Your task to perform on an android device: Open CNN.com Image 0: 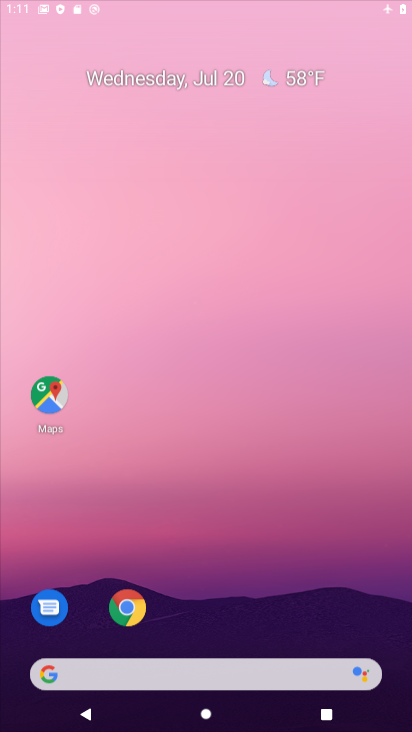
Step 0: drag from (236, 526) to (236, 363)
Your task to perform on an android device: Open CNN.com Image 1: 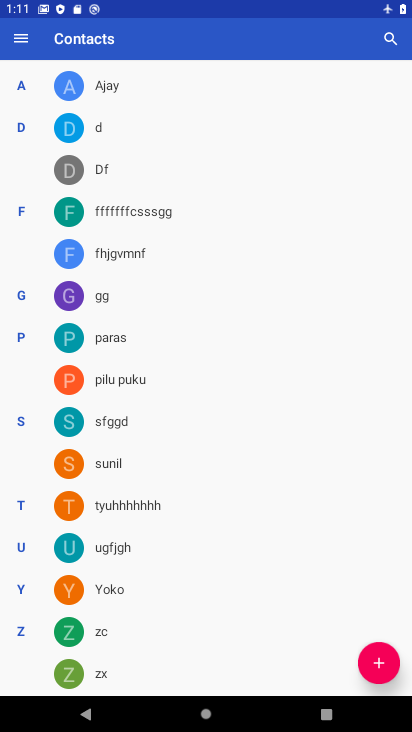
Step 1: press home button
Your task to perform on an android device: Open CNN.com Image 2: 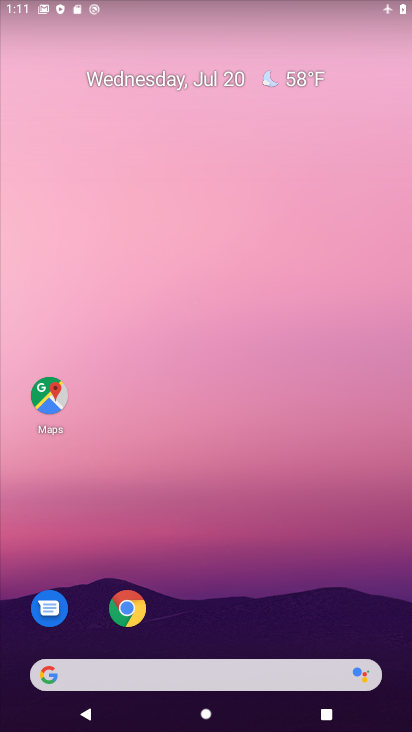
Step 2: drag from (251, 720) to (234, 256)
Your task to perform on an android device: Open CNN.com Image 3: 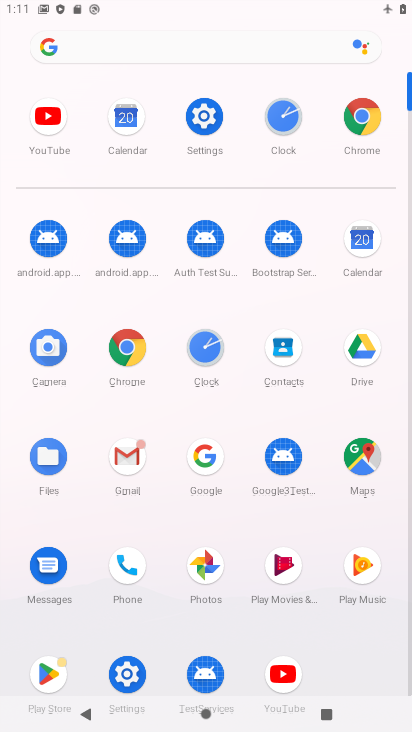
Step 3: click (365, 113)
Your task to perform on an android device: Open CNN.com Image 4: 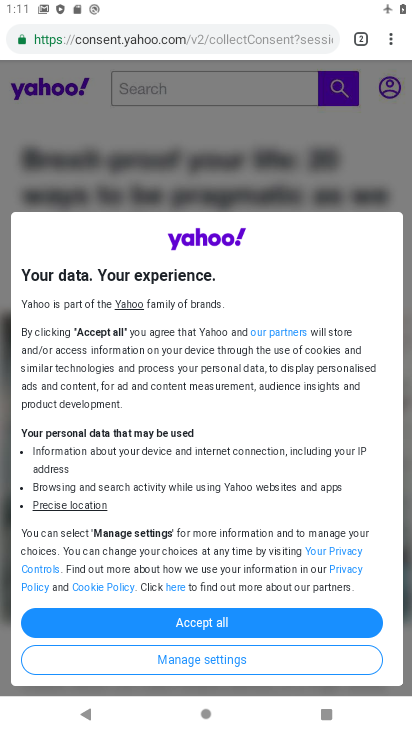
Step 4: click (391, 42)
Your task to perform on an android device: Open CNN.com Image 5: 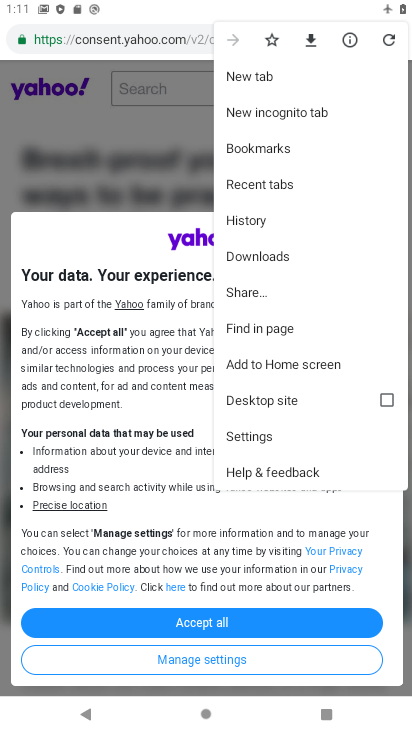
Step 5: click (258, 72)
Your task to perform on an android device: Open CNN.com Image 6: 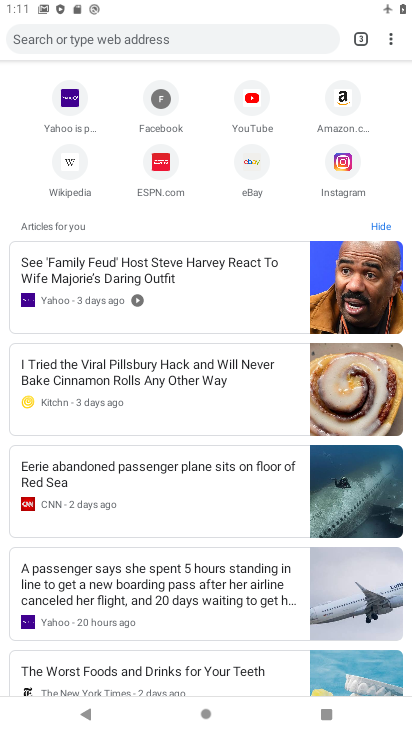
Step 6: click (241, 39)
Your task to perform on an android device: Open CNN.com Image 7: 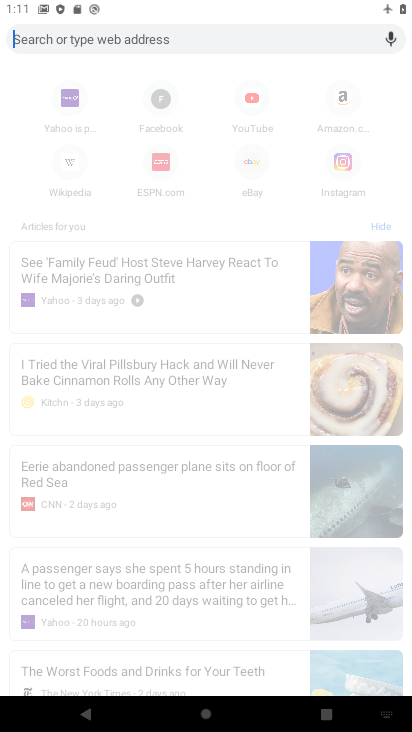
Step 7: type "CNN.comm"
Your task to perform on an android device: Open CNN.com Image 8: 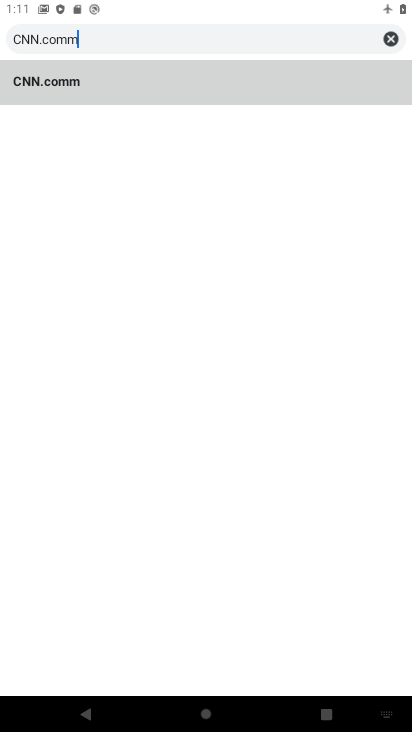
Step 8: type ""
Your task to perform on an android device: Open CNN.com Image 9: 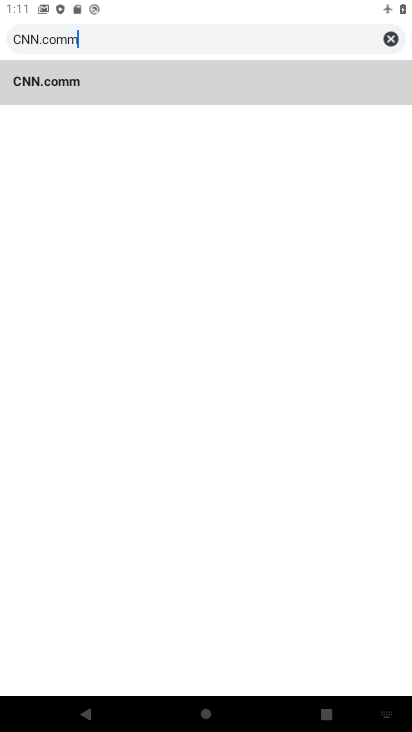
Step 9: click (88, 77)
Your task to perform on an android device: Open CNN.com Image 10: 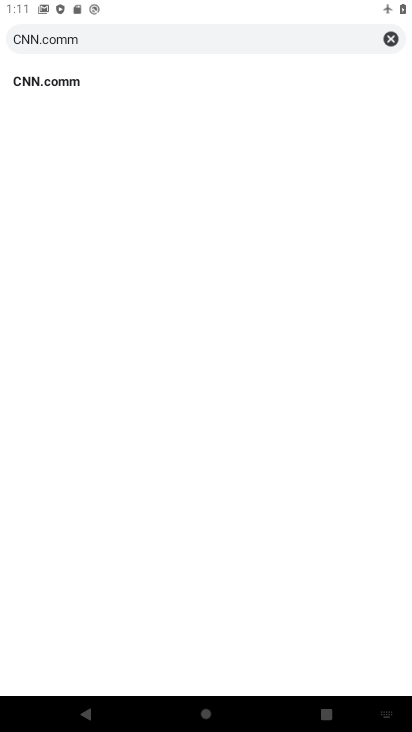
Step 10: click (58, 75)
Your task to perform on an android device: Open CNN.com Image 11: 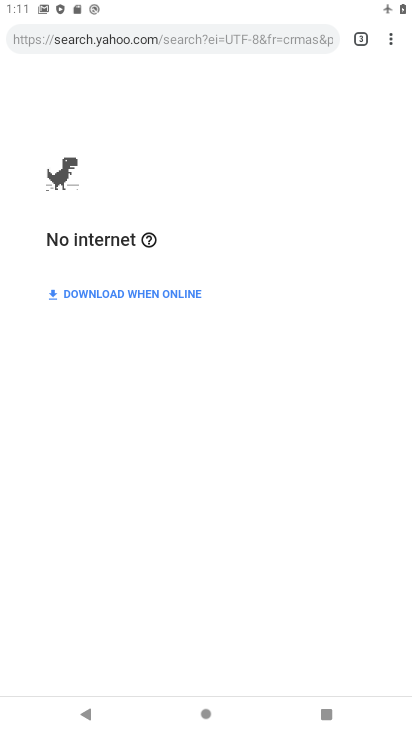
Step 11: task complete